Your task to perform on an android device: change the upload size in google photos Image 0: 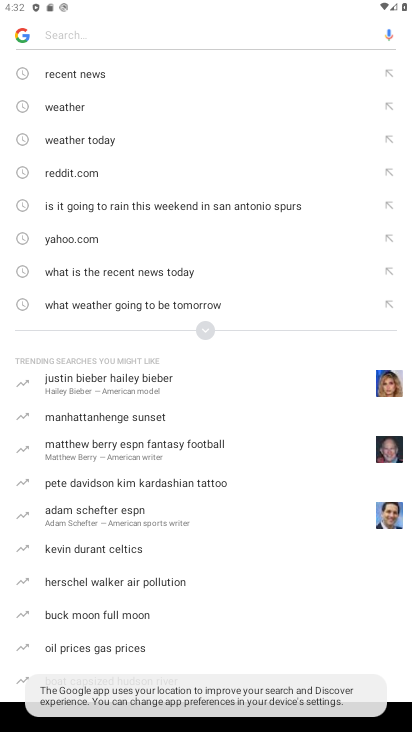
Step 0: press home button
Your task to perform on an android device: change the upload size in google photos Image 1: 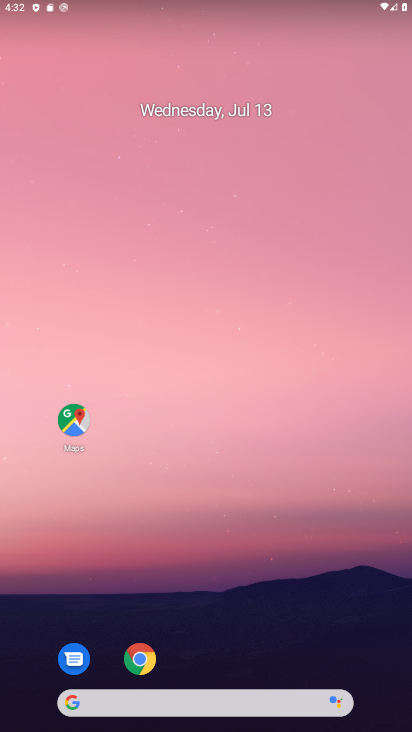
Step 1: drag from (271, 502) to (193, 88)
Your task to perform on an android device: change the upload size in google photos Image 2: 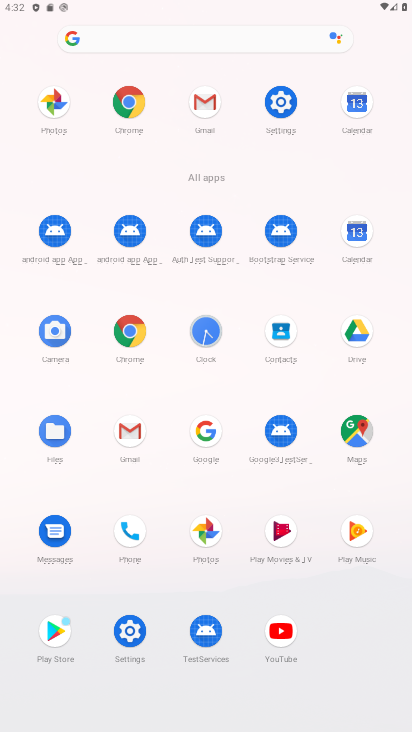
Step 2: click (210, 539)
Your task to perform on an android device: change the upload size in google photos Image 3: 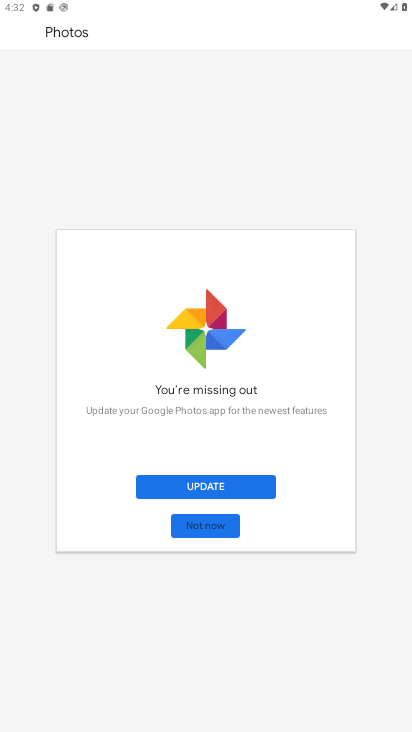
Step 3: click (216, 527)
Your task to perform on an android device: change the upload size in google photos Image 4: 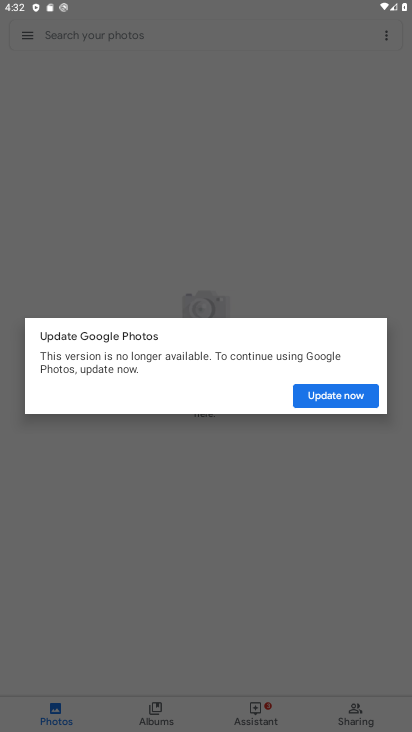
Step 4: task complete